Your task to perform on an android device: open device folders in google photos Image 0: 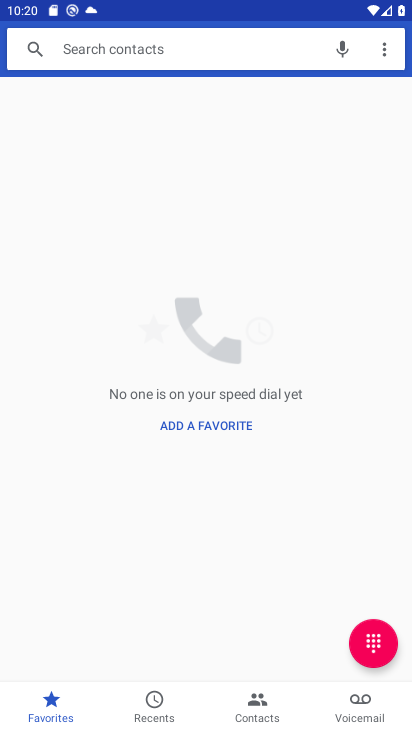
Step 0: press home button
Your task to perform on an android device: open device folders in google photos Image 1: 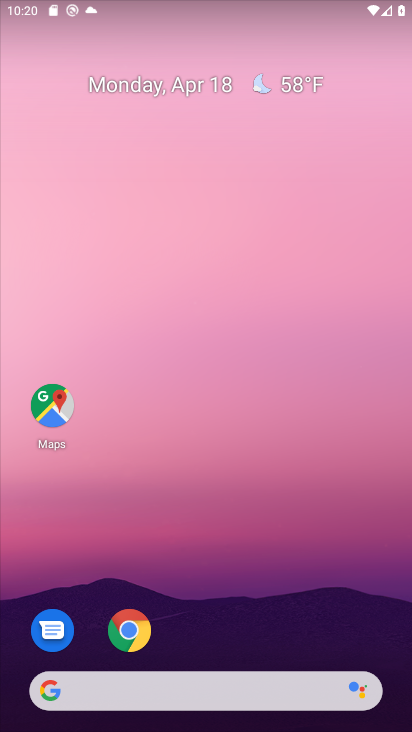
Step 1: drag from (217, 661) to (217, 73)
Your task to perform on an android device: open device folders in google photos Image 2: 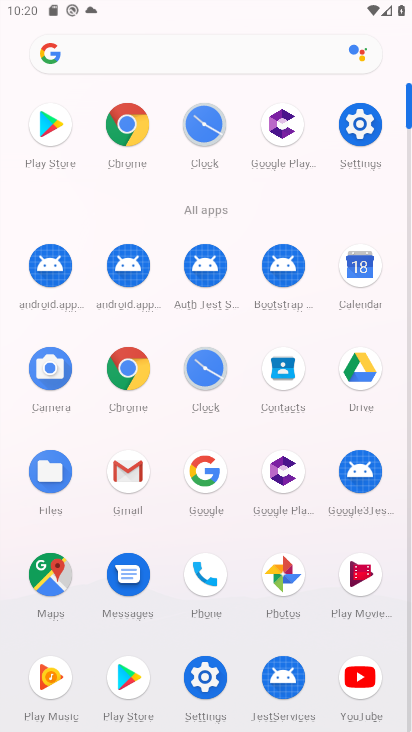
Step 2: click (290, 591)
Your task to perform on an android device: open device folders in google photos Image 3: 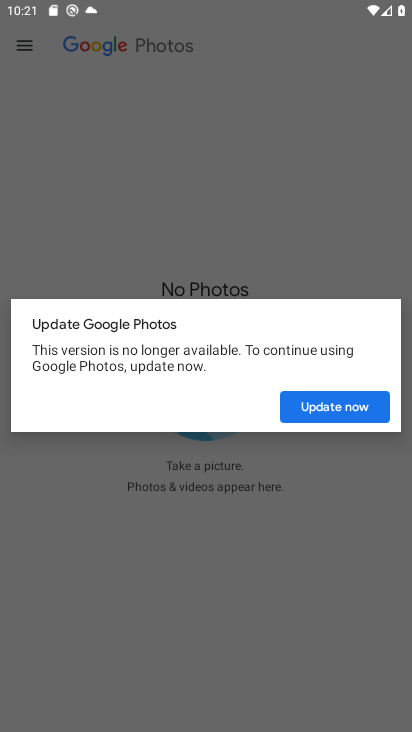
Step 3: click (353, 403)
Your task to perform on an android device: open device folders in google photos Image 4: 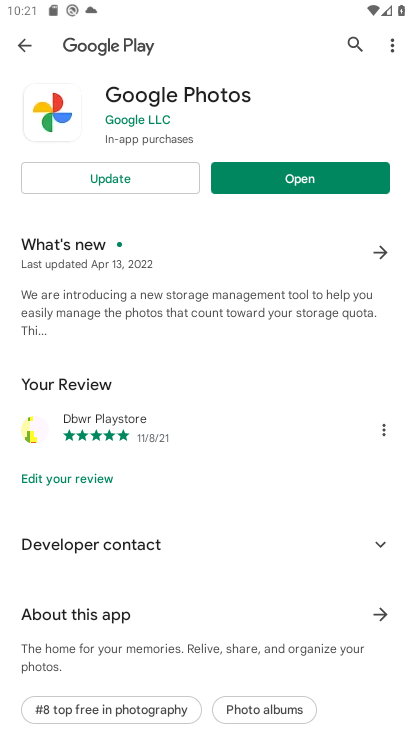
Step 4: click (262, 171)
Your task to perform on an android device: open device folders in google photos Image 5: 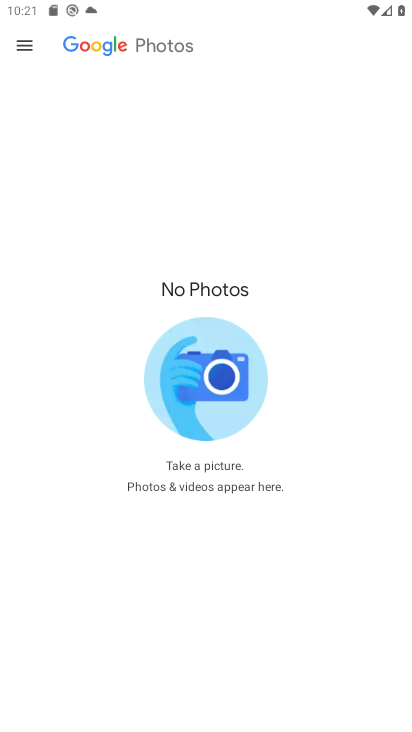
Step 5: click (33, 39)
Your task to perform on an android device: open device folders in google photos Image 6: 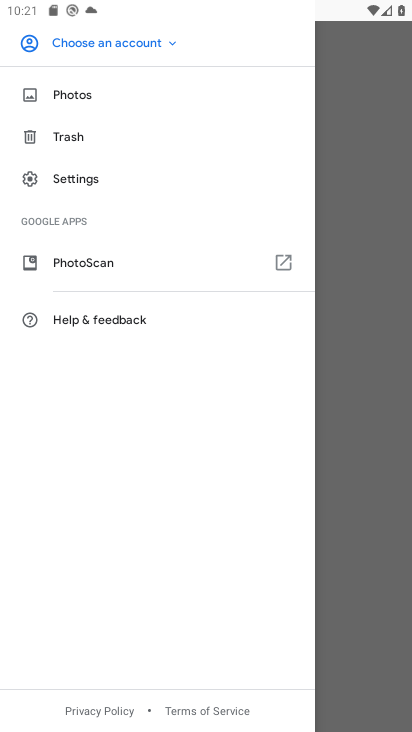
Step 6: click (88, 42)
Your task to perform on an android device: open device folders in google photos Image 7: 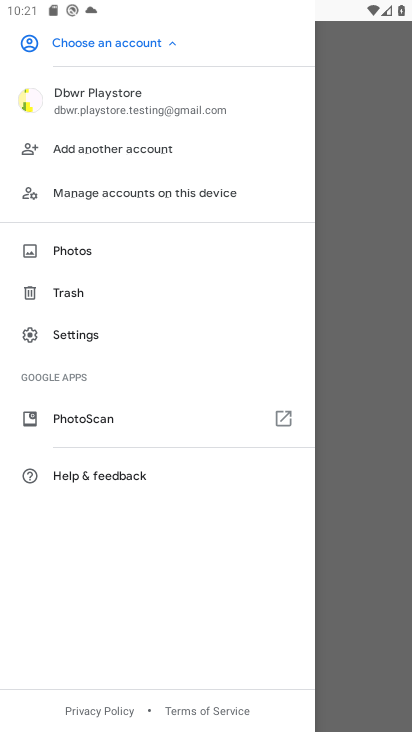
Step 7: click (99, 106)
Your task to perform on an android device: open device folders in google photos Image 8: 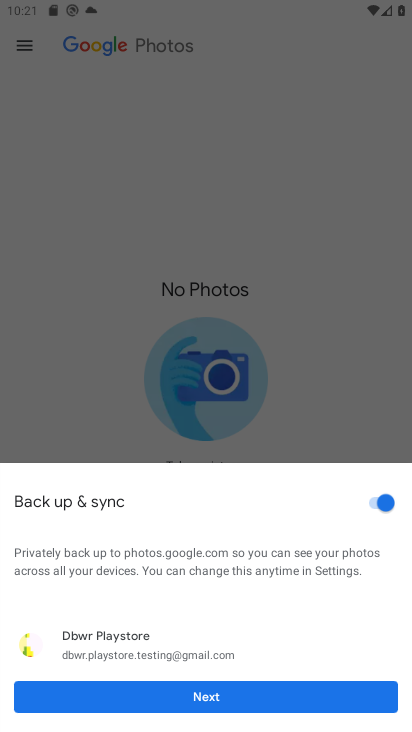
Step 8: click (226, 699)
Your task to perform on an android device: open device folders in google photos Image 9: 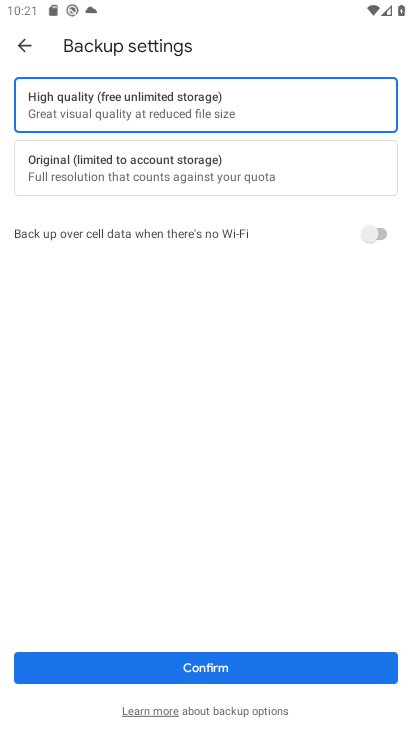
Step 9: click (223, 675)
Your task to perform on an android device: open device folders in google photos Image 10: 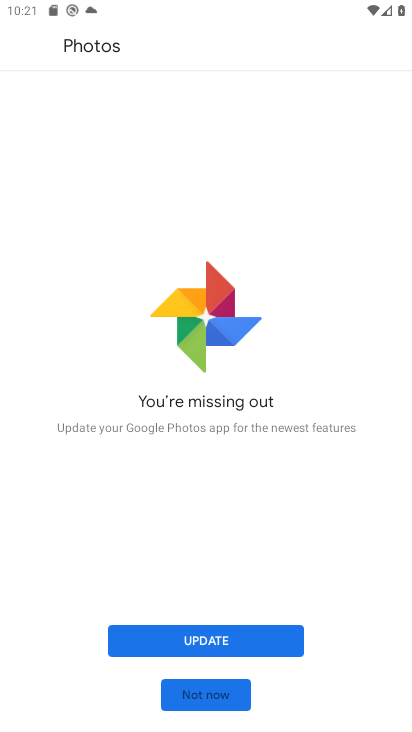
Step 10: click (206, 693)
Your task to perform on an android device: open device folders in google photos Image 11: 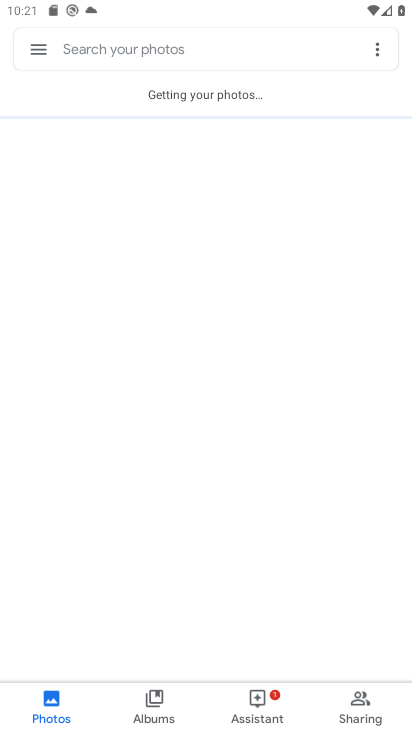
Step 11: click (49, 48)
Your task to perform on an android device: open device folders in google photos Image 12: 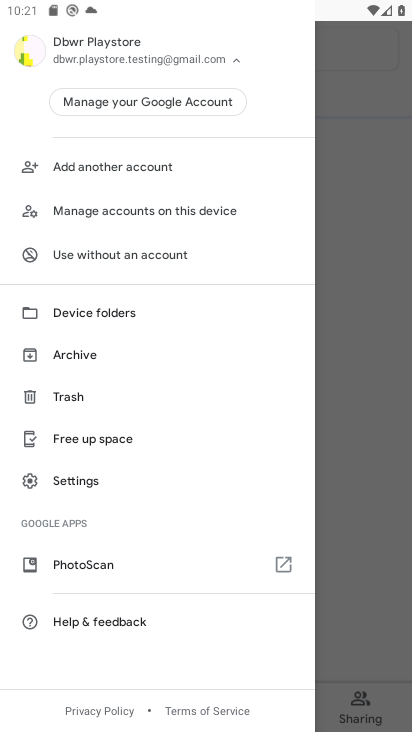
Step 12: click (82, 307)
Your task to perform on an android device: open device folders in google photos Image 13: 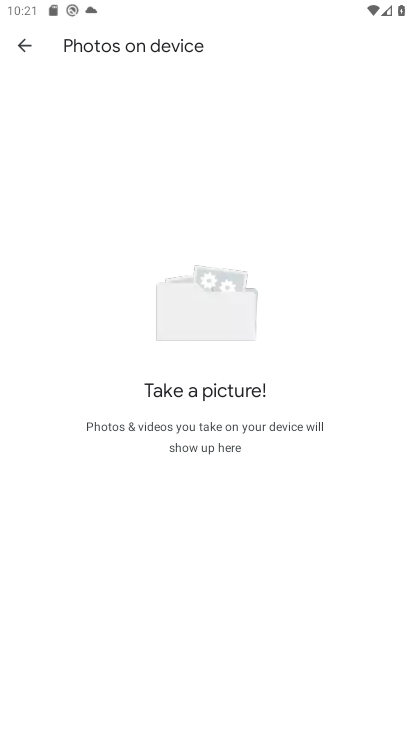
Step 13: task complete